Your task to perform on an android device: Go to notification settings Image 0: 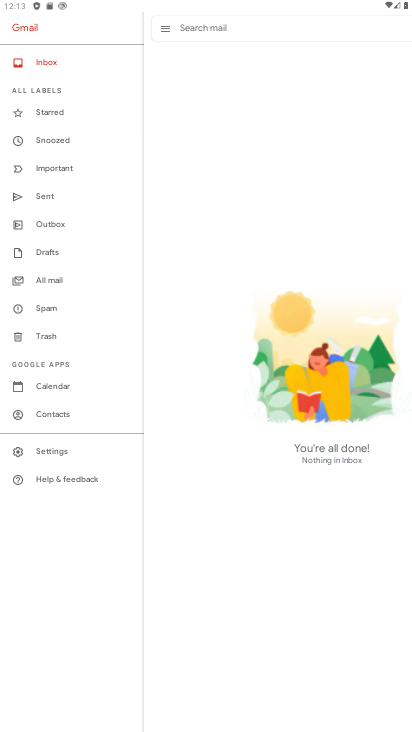
Step 0: press home button
Your task to perform on an android device: Go to notification settings Image 1: 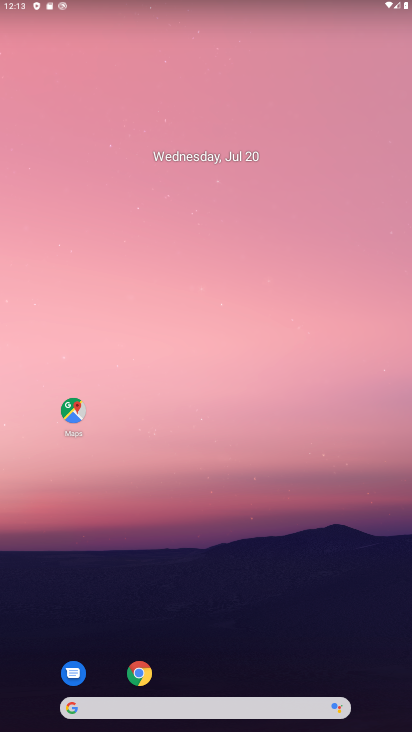
Step 1: drag from (218, 663) to (151, 11)
Your task to perform on an android device: Go to notification settings Image 2: 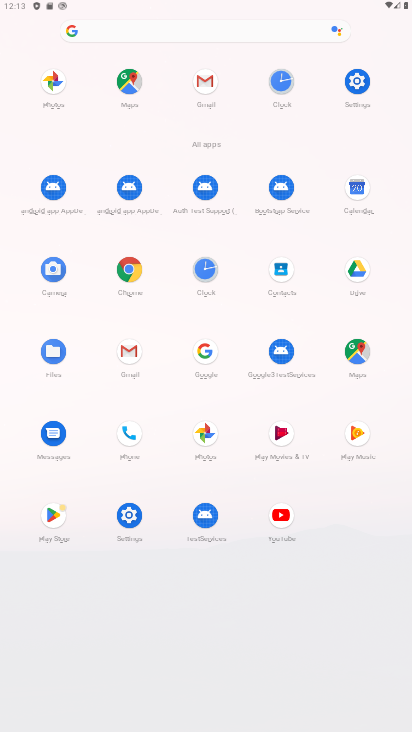
Step 2: click (135, 519)
Your task to perform on an android device: Go to notification settings Image 3: 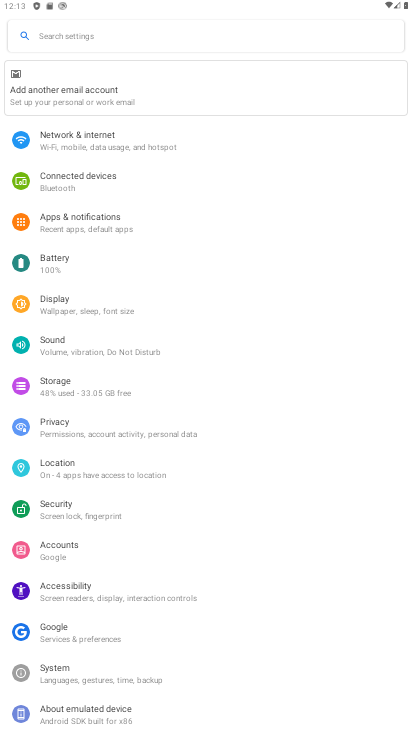
Step 3: click (120, 218)
Your task to perform on an android device: Go to notification settings Image 4: 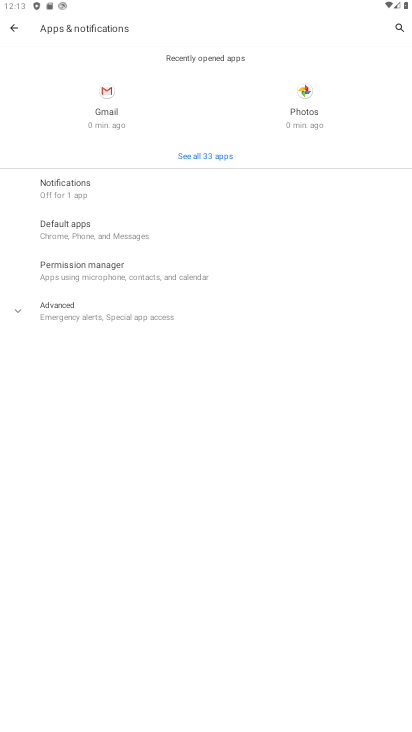
Step 4: click (84, 195)
Your task to perform on an android device: Go to notification settings Image 5: 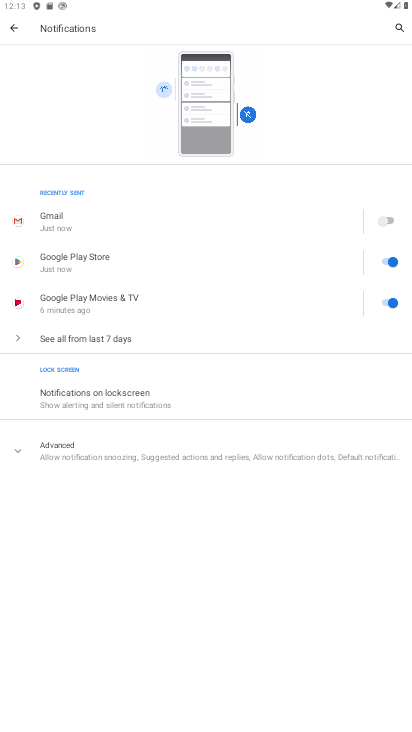
Step 5: task complete